Your task to perform on an android device: Is it going to rain this weekend? Image 0: 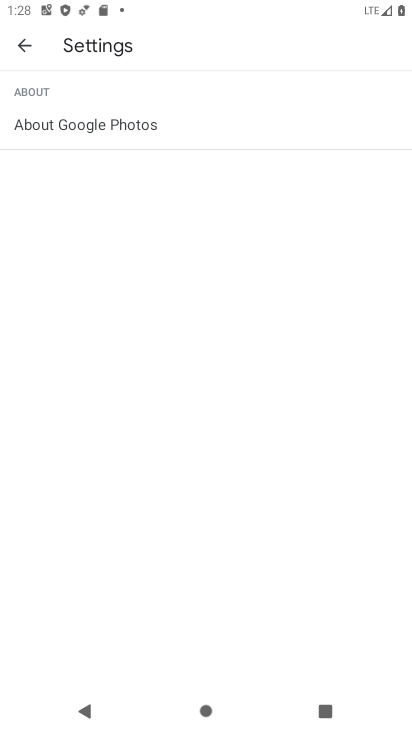
Step 0: press home button
Your task to perform on an android device: Is it going to rain this weekend? Image 1: 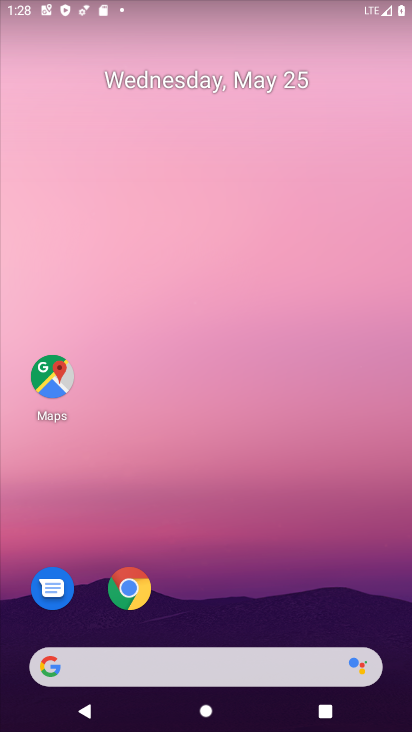
Step 1: click (97, 666)
Your task to perform on an android device: Is it going to rain this weekend? Image 2: 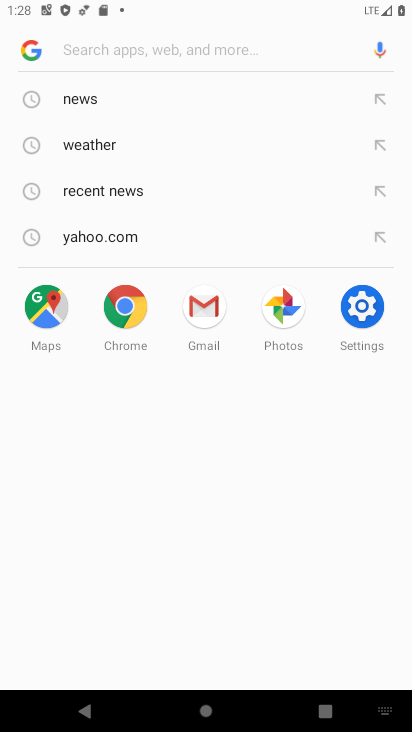
Step 2: click (91, 150)
Your task to perform on an android device: Is it going to rain this weekend? Image 3: 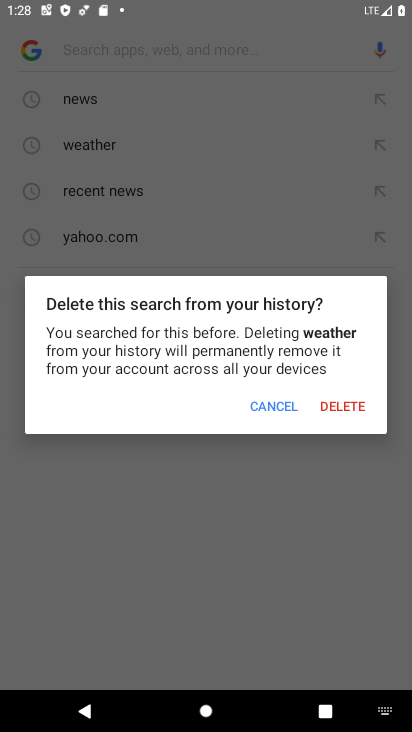
Step 3: click (275, 406)
Your task to perform on an android device: Is it going to rain this weekend? Image 4: 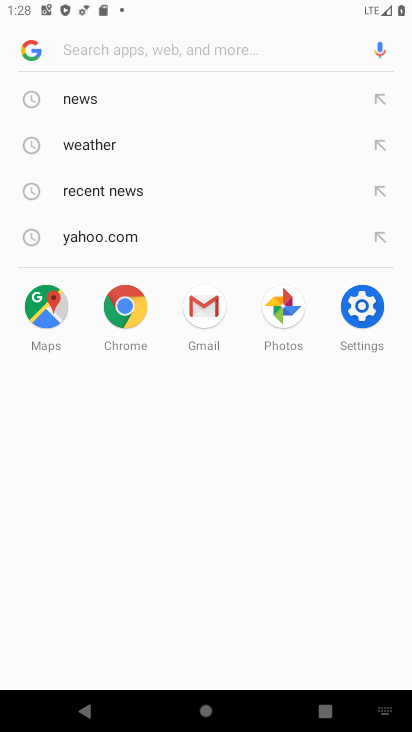
Step 4: click (68, 146)
Your task to perform on an android device: Is it going to rain this weekend? Image 5: 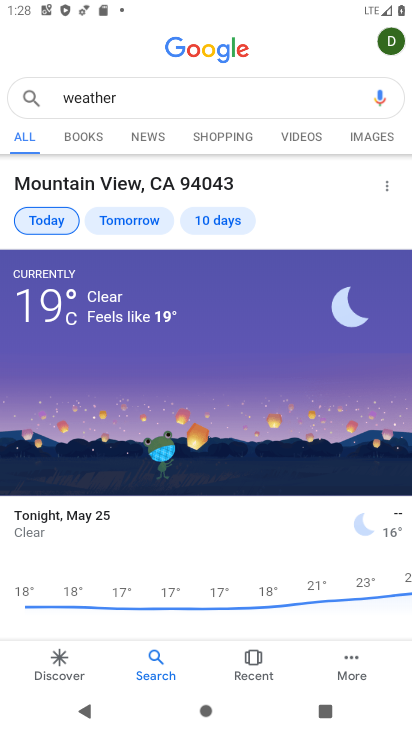
Step 5: click (216, 214)
Your task to perform on an android device: Is it going to rain this weekend? Image 6: 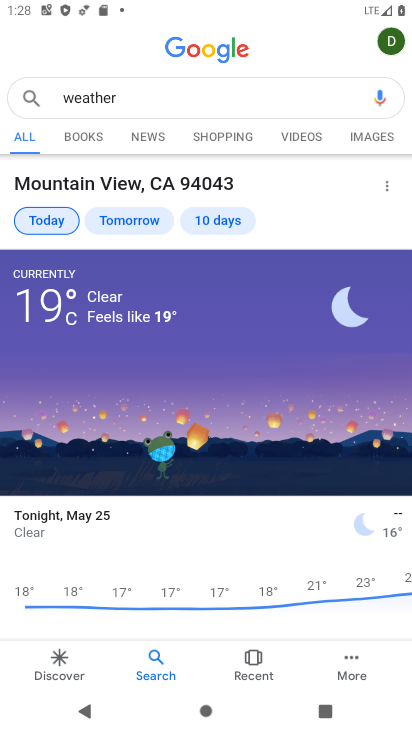
Step 6: click (219, 223)
Your task to perform on an android device: Is it going to rain this weekend? Image 7: 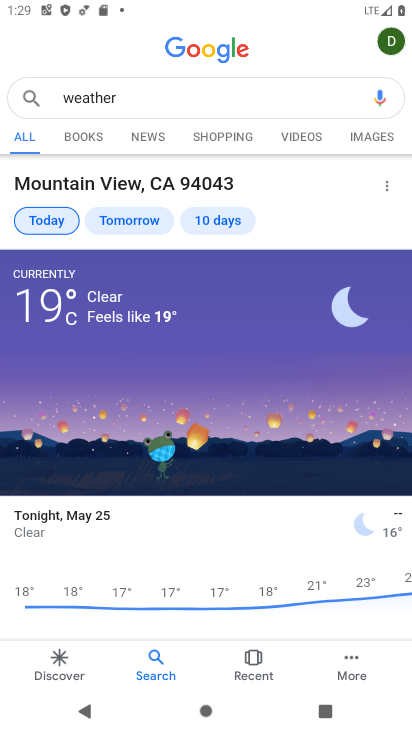
Step 7: click (219, 224)
Your task to perform on an android device: Is it going to rain this weekend? Image 8: 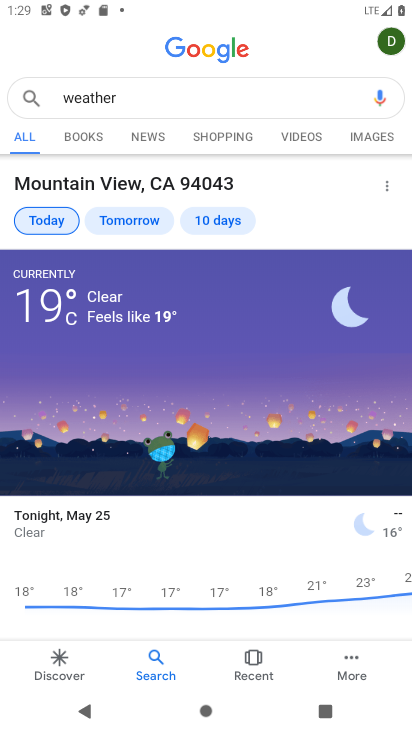
Step 8: click (256, 244)
Your task to perform on an android device: Is it going to rain this weekend? Image 9: 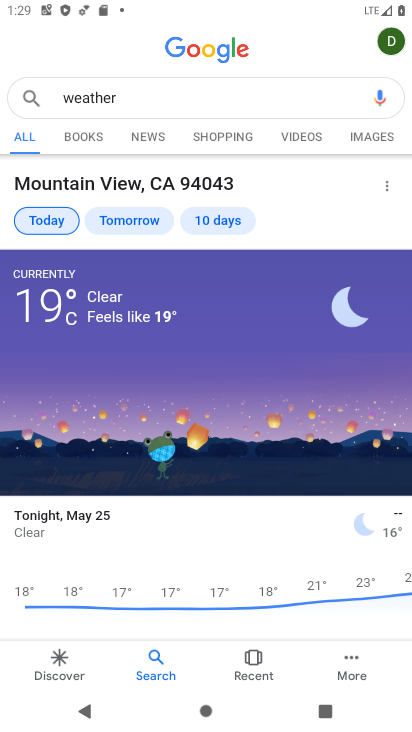
Step 9: click (222, 223)
Your task to perform on an android device: Is it going to rain this weekend? Image 10: 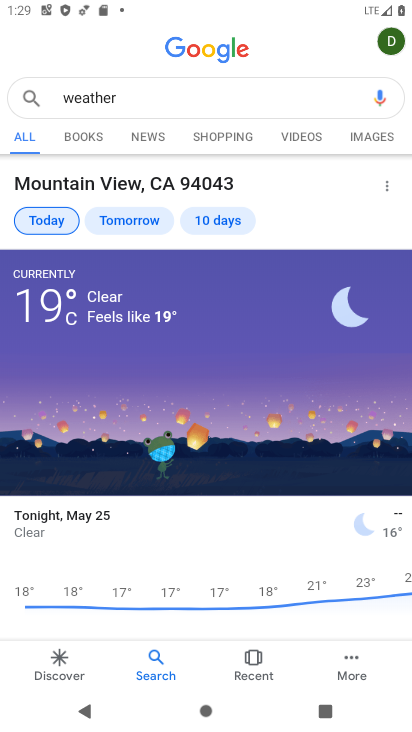
Step 10: click (222, 223)
Your task to perform on an android device: Is it going to rain this weekend? Image 11: 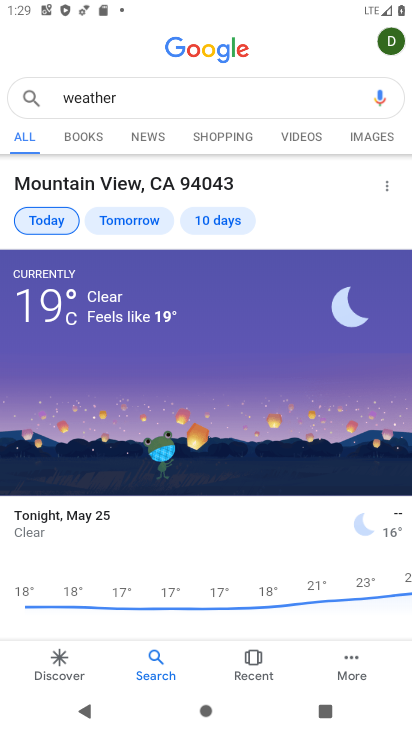
Step 11: click (222, 224)
Your task to perform on an android device: Is it going to rain this weekend? Image 12: 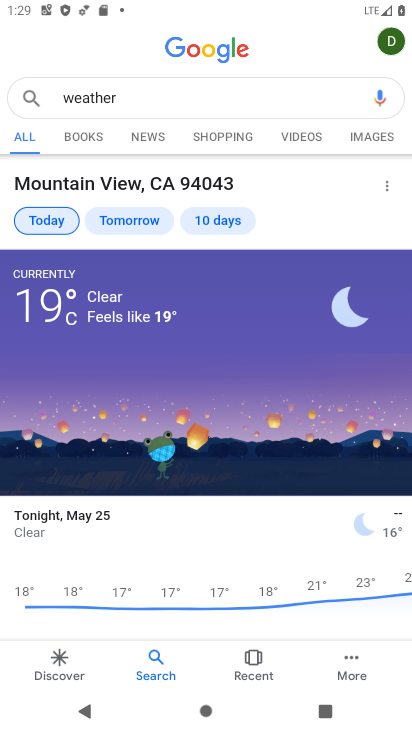
Step 12: task complete